Your task to perform on an android device: What's the weather today? Image 0: 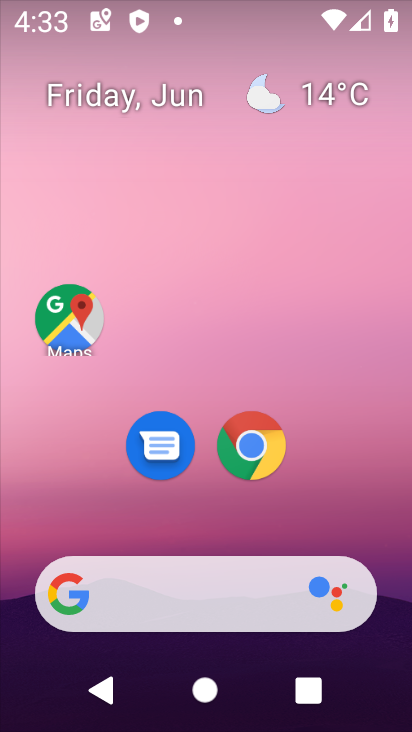
Step 0: click (173, 590)
Your task to perform on an android device: What's the weather today? Image 1: 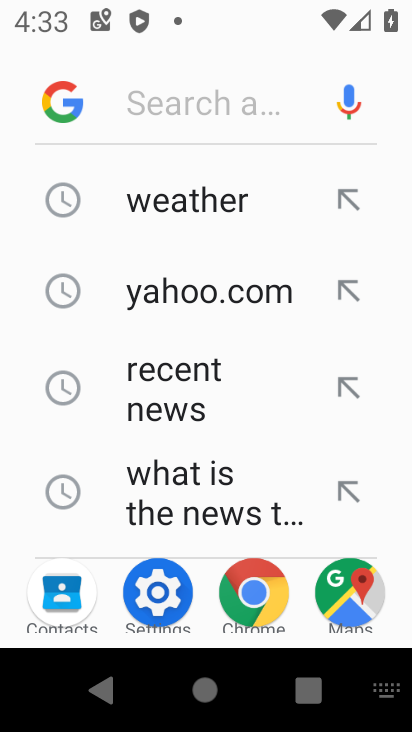
Step 1: click (221, 200)
Your task to perform on an android device: What's the weather today? Image 2: 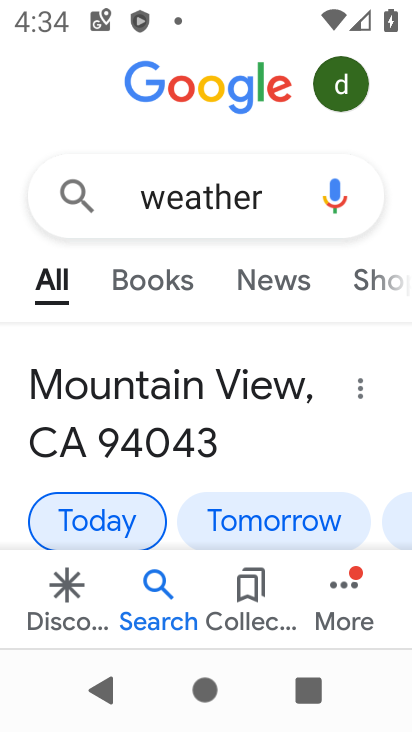
Step 2: task complete